Your task to perform on an android device: choose inbox layout in the gmail app Image 0: 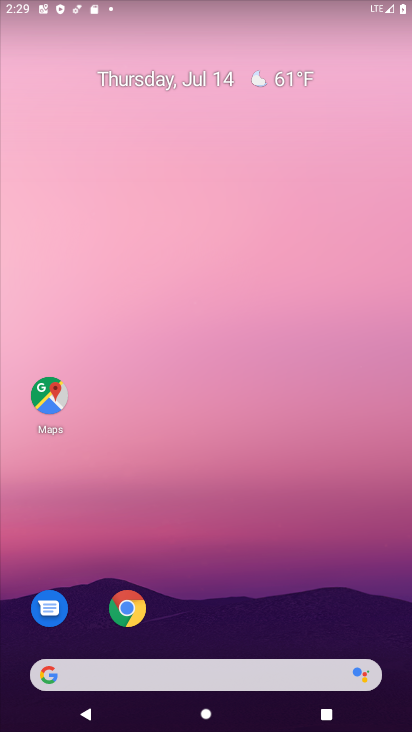
Step 0: drag from (195, 640) to (215, 287)
Your task to perform on an android device: choose inbox layout in the gmail app Image 1: 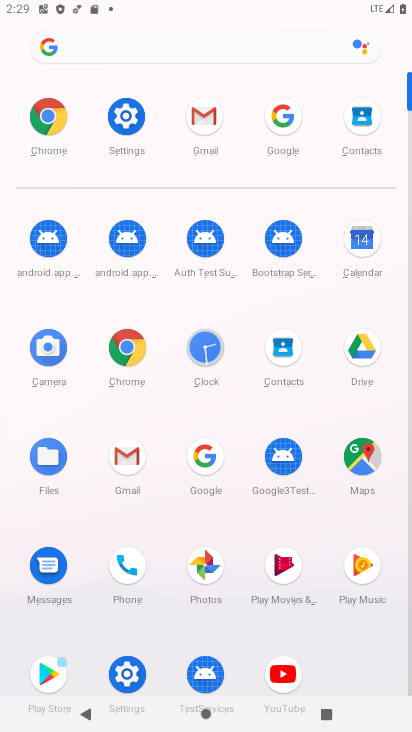
Step 1: click (120, 464)
Your task to perform on an android device: choose inbox layout in the gmail app Image 2: 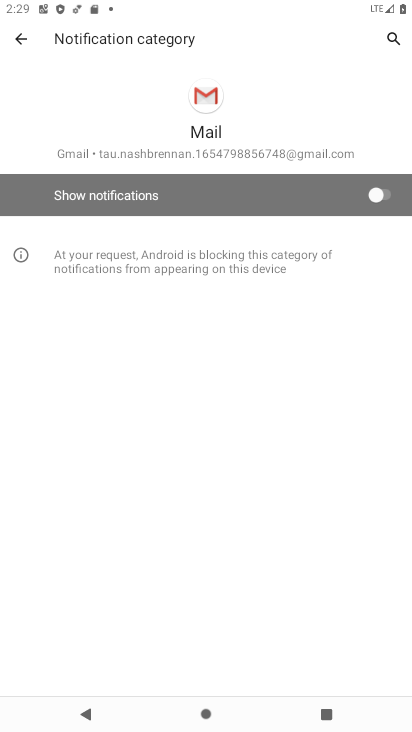
Step 2: click (14, 36)
Your task to perform on an android device: choose inbox layout in the gmail app Image 3: 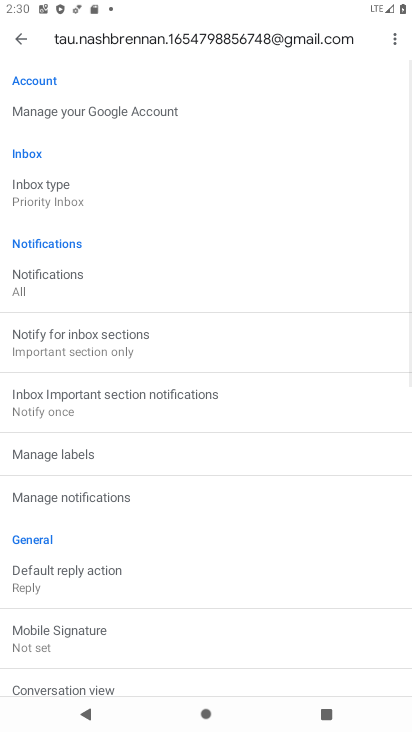
Step 3: click (60, 195)
Your task to perform on an android device: choose inbox layout in the gmail app Image 4: 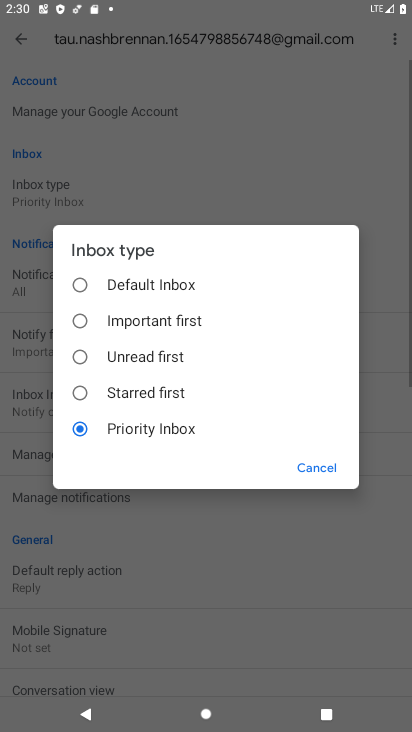
Step 4: click (119, 316)
Your task to perform on an android device: choose inbox layout in the gmail app Image 5: 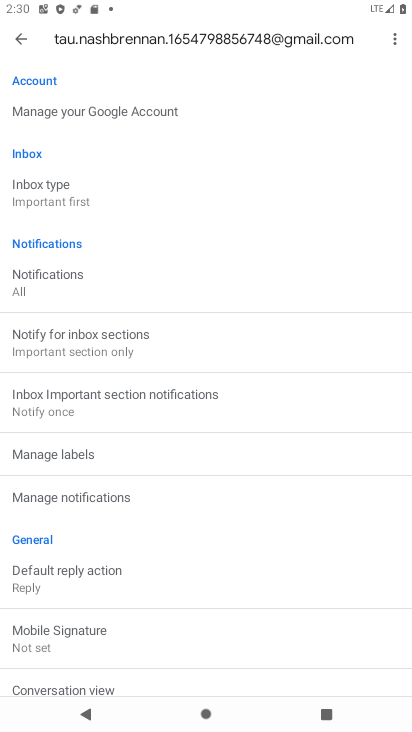
Step 5: task complete